Your task to perform on an android device: Search for energizer triple a on target.com, select the first entry, add it to the cart, then select checkout. Image 0: 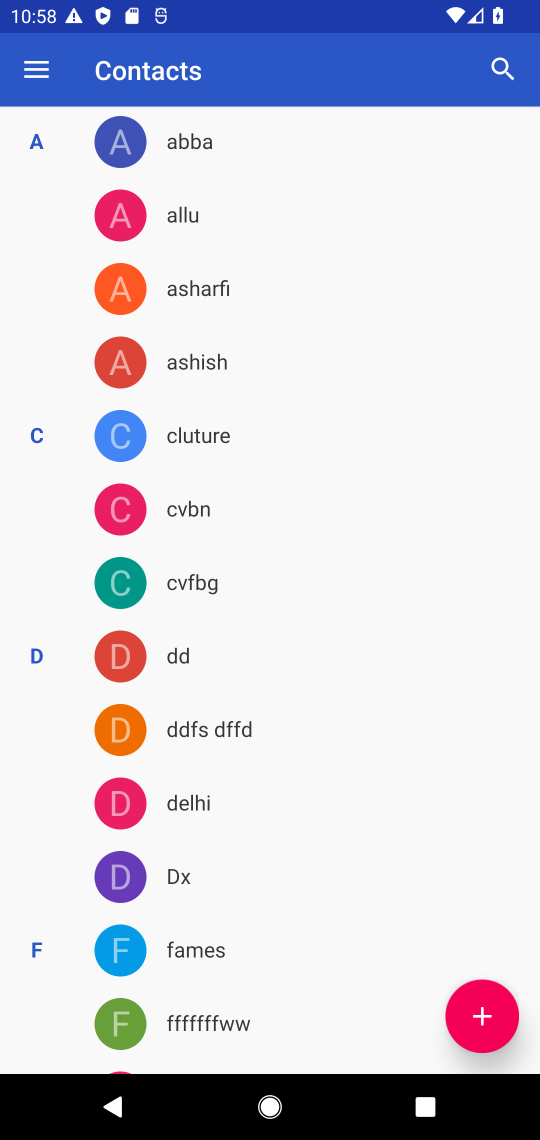
Step 0: press home button
Your task to perform on an android device: Search for energizer triple a on target.com, select the first entry, add it to the cart, then select checkout. Image 1: 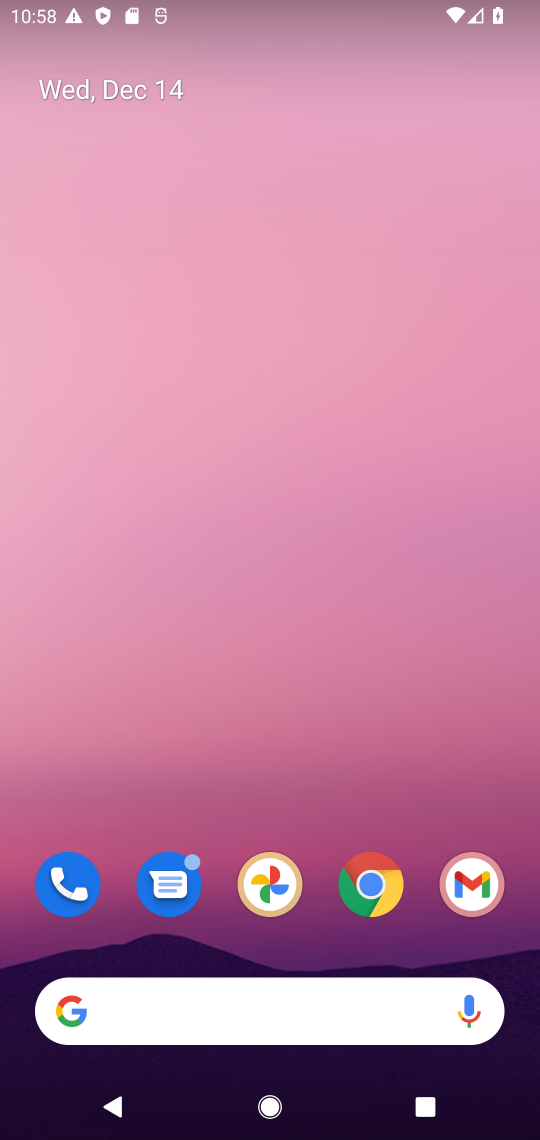
Step 1: click (366, 886)
Your task to perform on an android device: Search for energizer triple a on target.com, select the first entry, add it to the cart, then select checkout. Image 2: 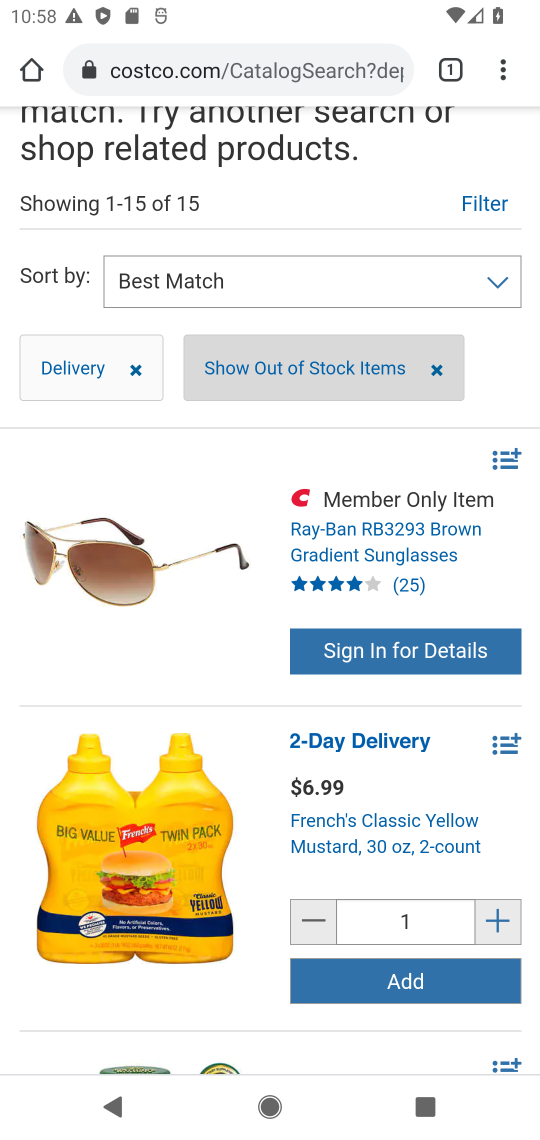
Step 2: click (218, 79)
Your task to perform on an android device: Search for energizer triple a on target.com, select the first entry, add it to the cart, then select checkout. Image 3: 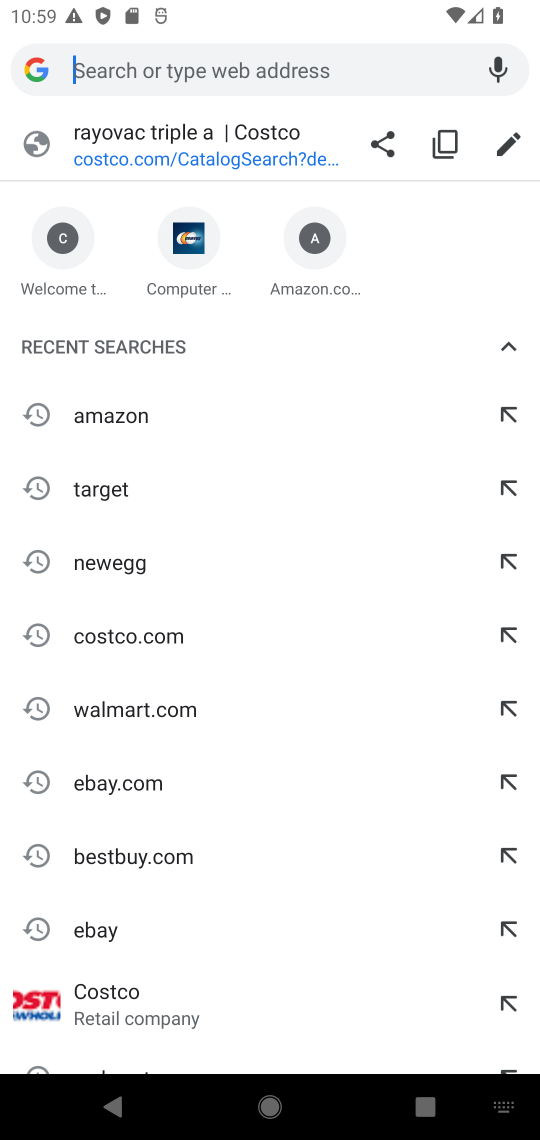
Step 3: type "target.com"
Your task to perform on an android device: Search for energizer triple a on target.com, select the first entry, add it to the cart, then select checkout. Image 4: 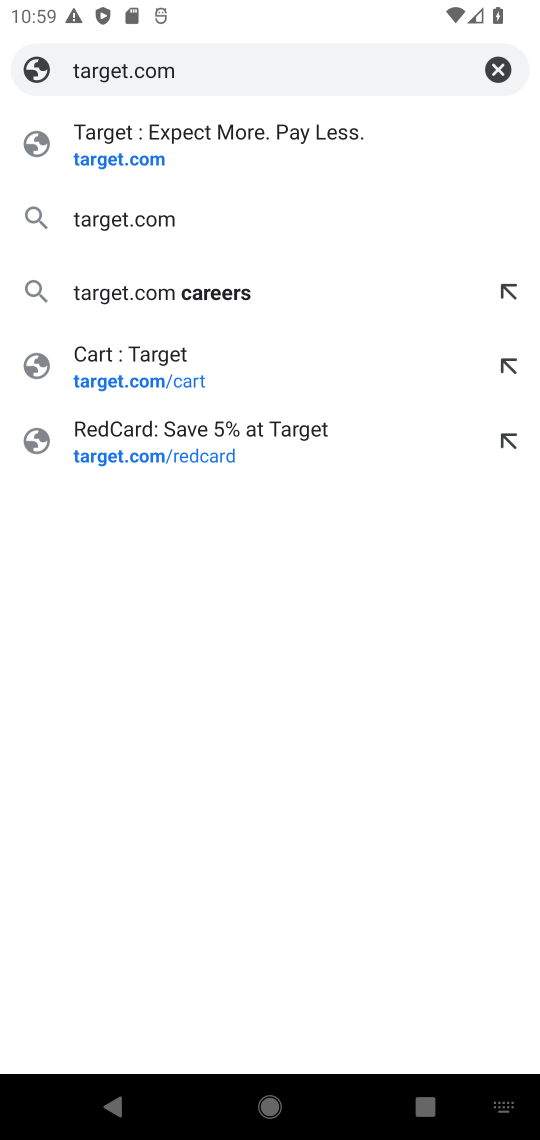
Step 4: click (207, 150)
Your task to perform on an android device: Search for energizer triple a on target.com, select the first entry, add it to the cart, then select checkout. Image 5: 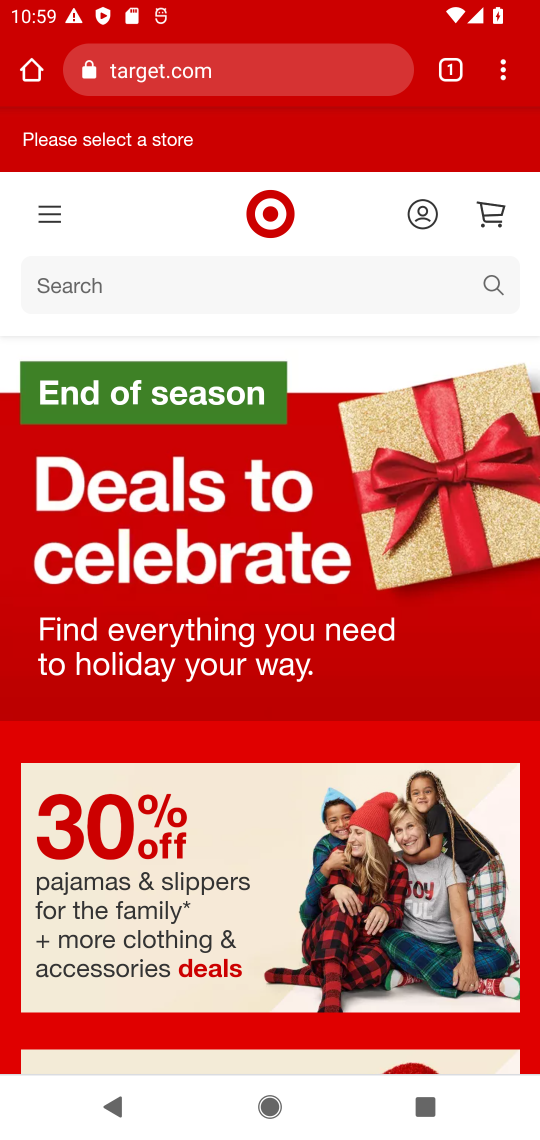
Step 5: click (191, 301)
Your task to perform on an android device: Search for energizer triple a on target.com, select the first entry, add it to the cart, then select checkout. Image 6: 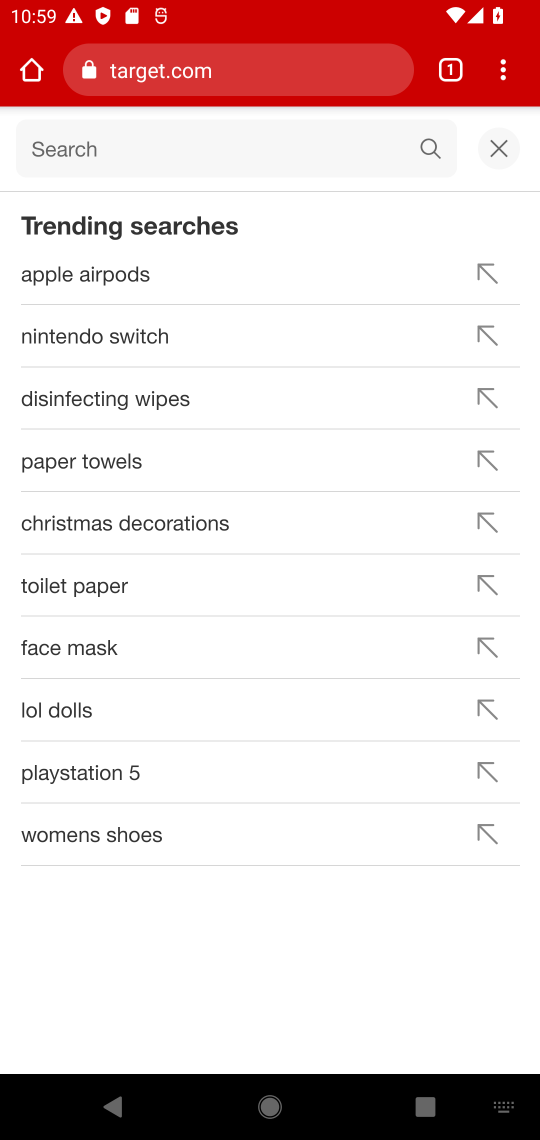
Step 6: type "energizer triple a"
Your task to perform on an android device: Search for energizer triple a on target.com, select the first entry, add it to the cart, then select checkout. Image 7: 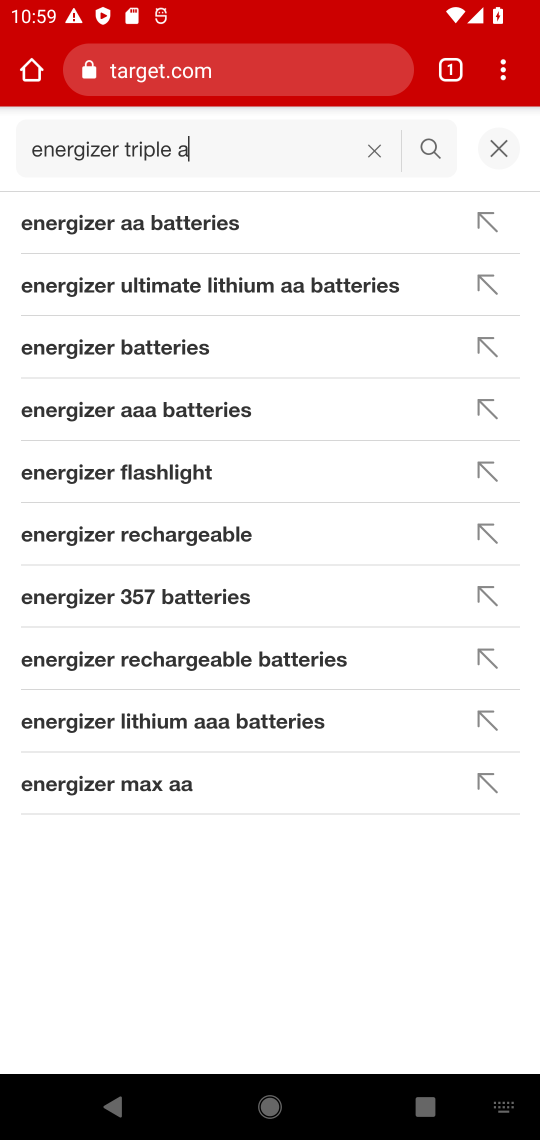
Step 7: press enter
Your task to perform on an android device: Search for energizer triple a on target.com, select the first entry, add it to the cart, then select checkout. Image 8: 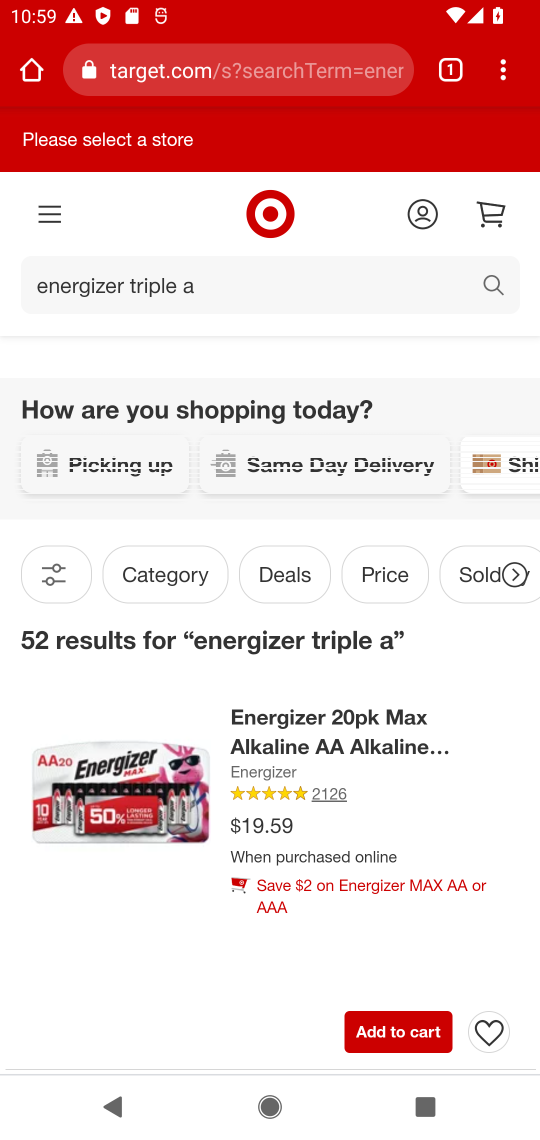
Step 8: drag from (406, 829) to (424, 398)
Your task to perform on an android device: Search for energizer triple a on target.com, select the first entry, add it to the cart, then select checkout. Image 9: 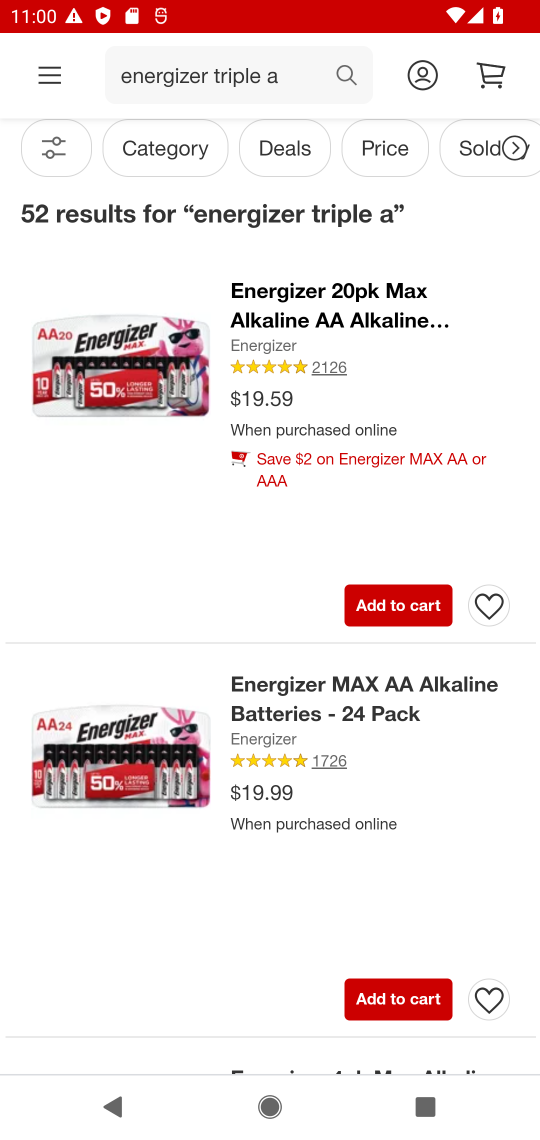
Step 9: click (354, 355)
Your task to perform on an android device: Search for energizer triple a on target.com, select the first entry, add it to the cart, then select checkout. Image 10: 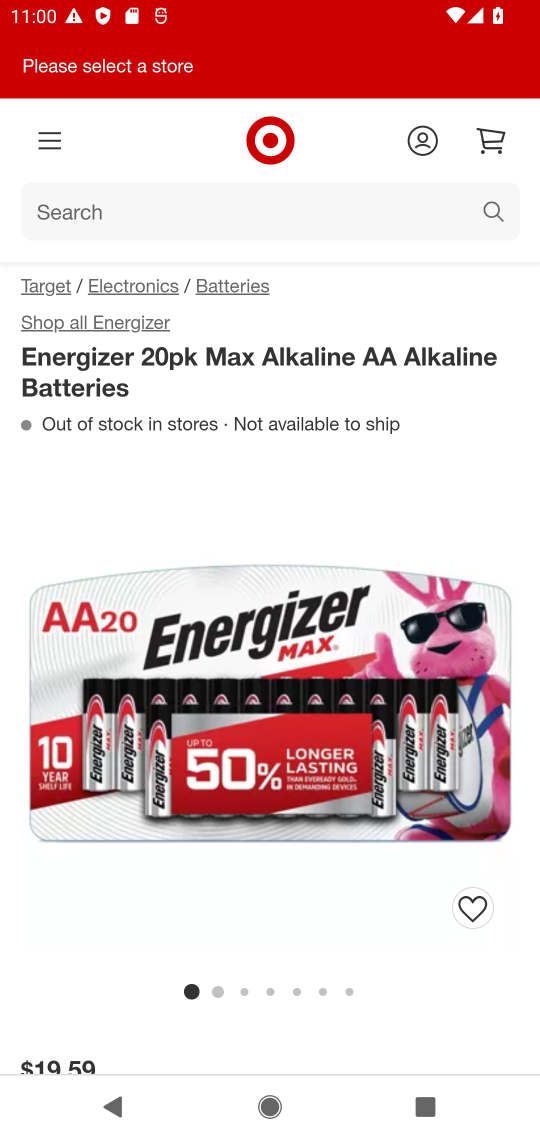
Step 10: task complete